Your task to perform on an android device: toggle notification dots Image 0: 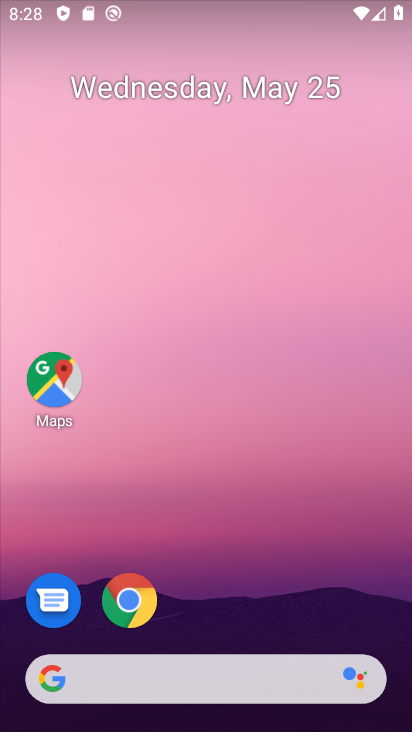
Step 0: drag from (264, 599) to (302, 4)
Your task to perform on an android device: toggle notification dots Image 1: 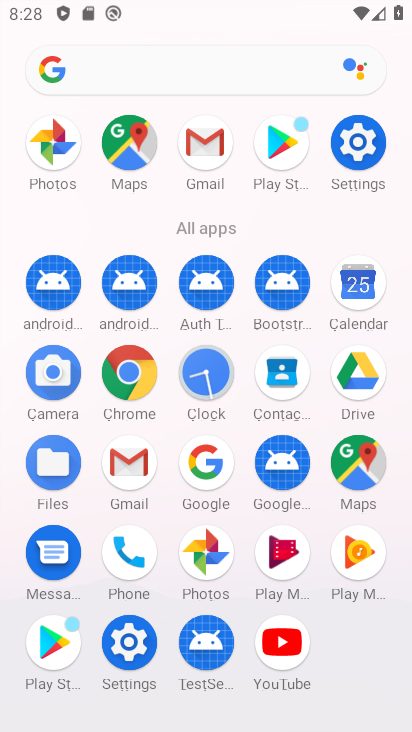
Step 1: click (347, 154)
Your task to perform on an android device: toggle notification dots Image 2: 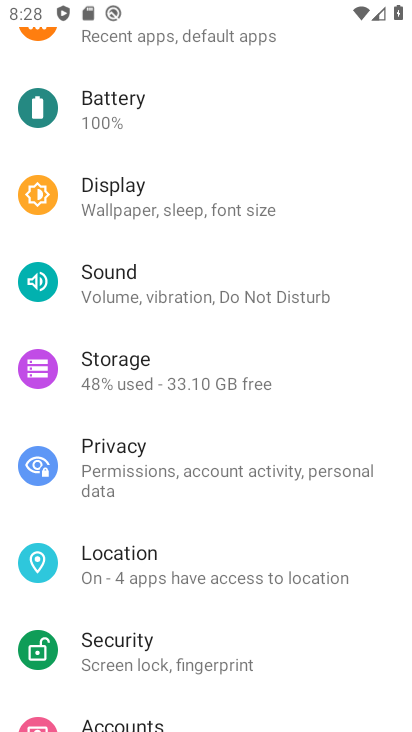
Step 2: click (243, 44)
Your task to perform on an android device: toggle notification dots Image 3: 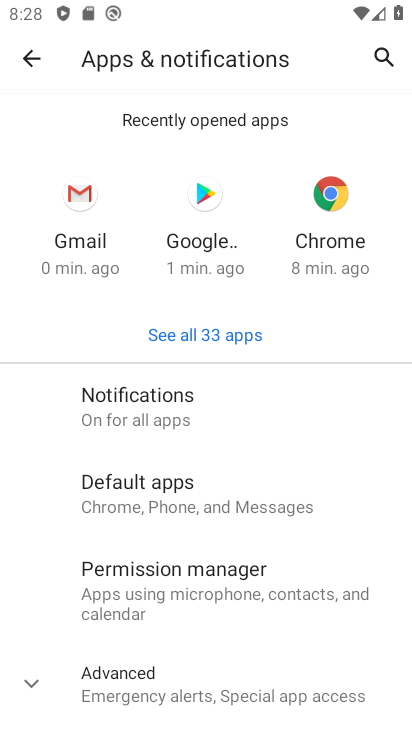
Step 3: click (171, 418)
Your task to perform on an android device: toggle notification dots Image 4: 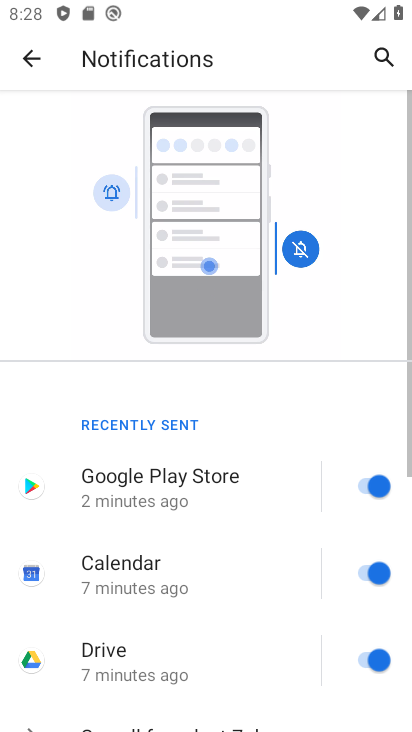
Step 4: drag from (188, 633) to (232, 268)
Your task to perform on an android device: toggle notification dots Image 5: 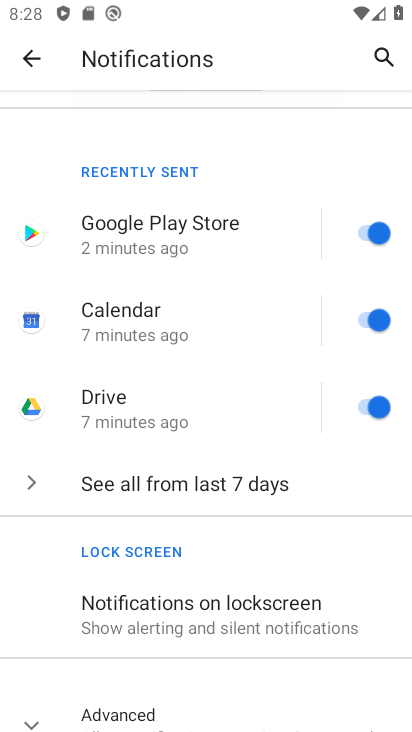
Step 5: click (181, 684)
Your task to perform on an android device: toggle notification dots Image 6: 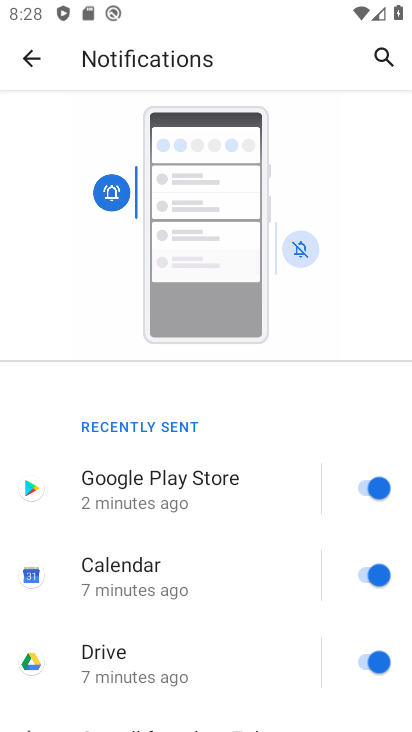
Step 6: drag from (179, 648) to (176, 208)
Your task to perform on an android device: toggle notification dots Image 7: 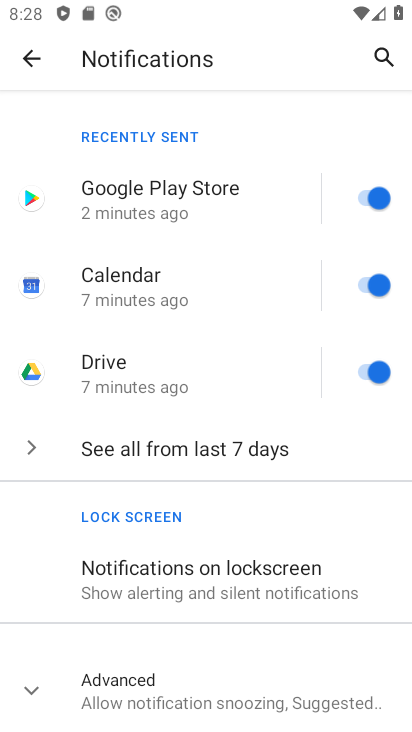
Step 7: click (215, 659)
Your task to perform on an android device: toggle notification dots Image 8: 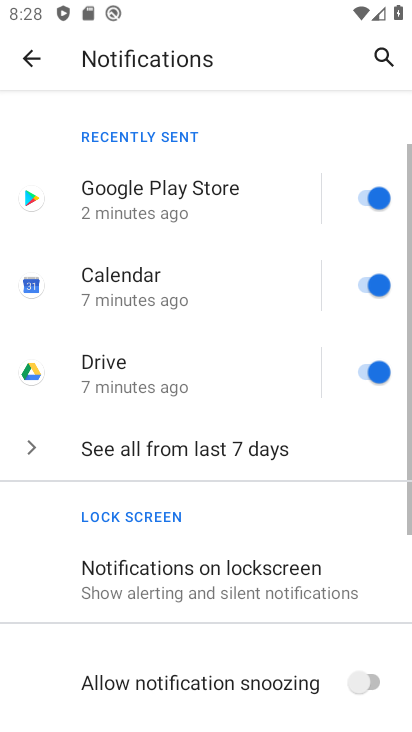
Step 8: drag from (207, 662) to (221, 224)
Your task to perform on an android device: toggle notification dots Image 9: 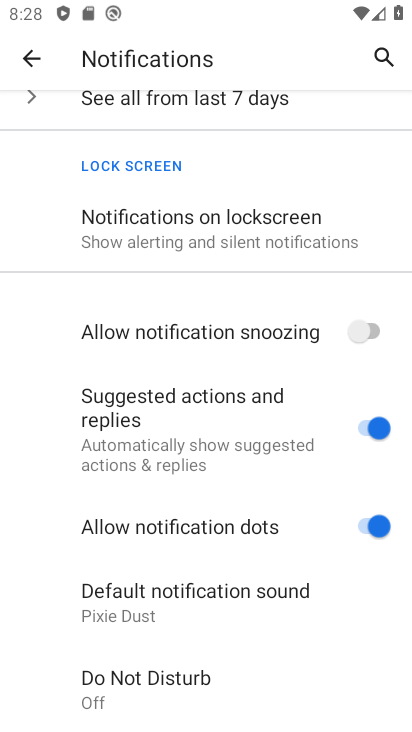
Step 9: click (363, 530)
Your task to perform on an android device: toggle notification dots Image 10: 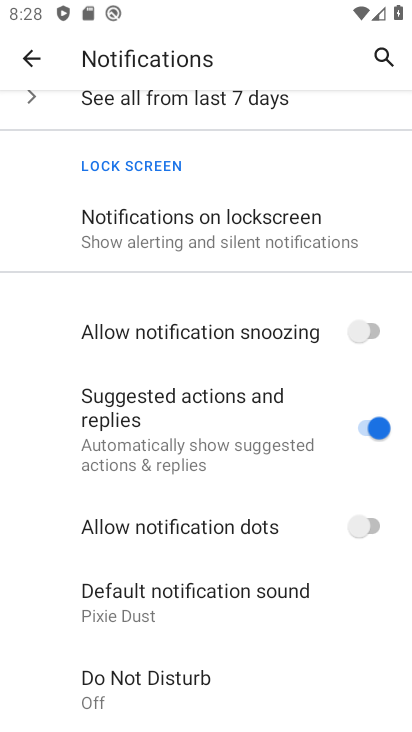
Step 10: task complete